Your task to perform on an android device: toggle show notifications on the lock screen Image 0: 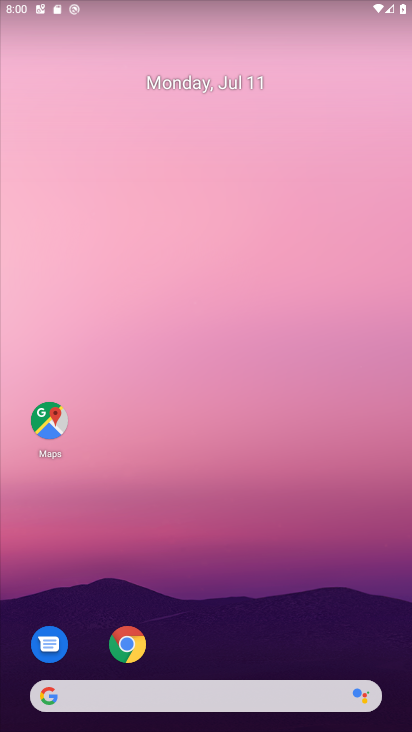
Step 0: drag from (249, 358) to (254, 116)
Your task to perform on an android device: toggle show notifications on the lock screen Image 1: 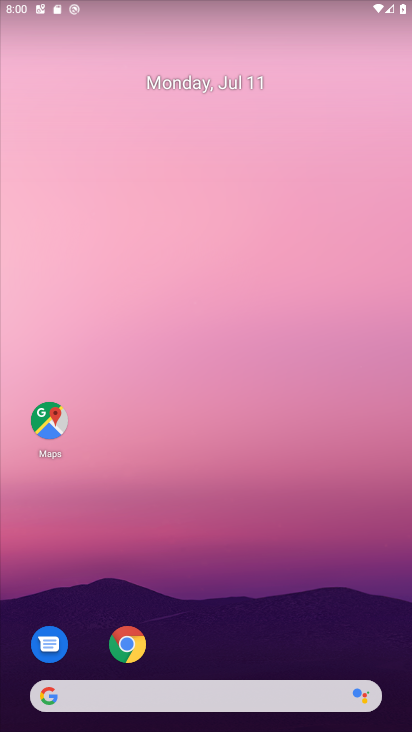
Step 1: drag from (218, 696) to (411, 87)
Your task to perform on an android device: toggle show notifications on the lock screen Image 2: 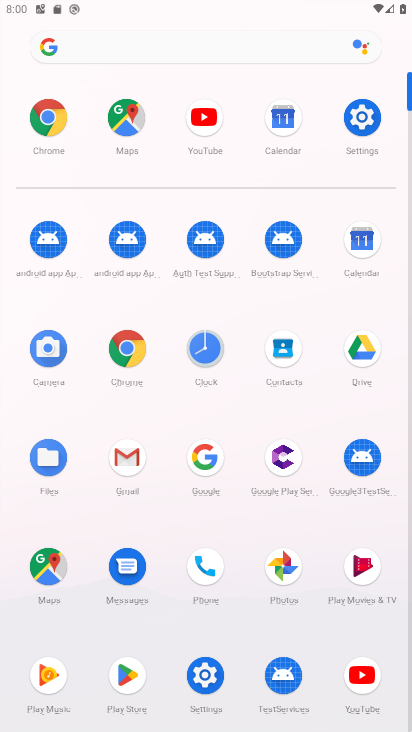
Step 2: click (370, 125)
Your task to perform on an android device: toggle show notifications on the lock screen Image 3: 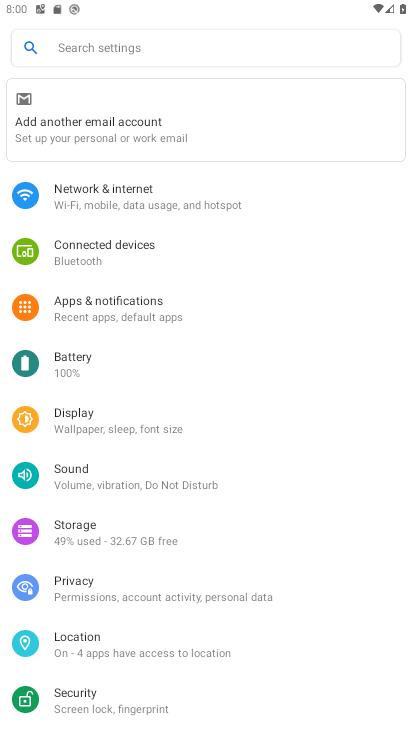
Step 3: click (143, 303)
Your task to perform on an android device: toggle show notifications on the lock screen Image 4: 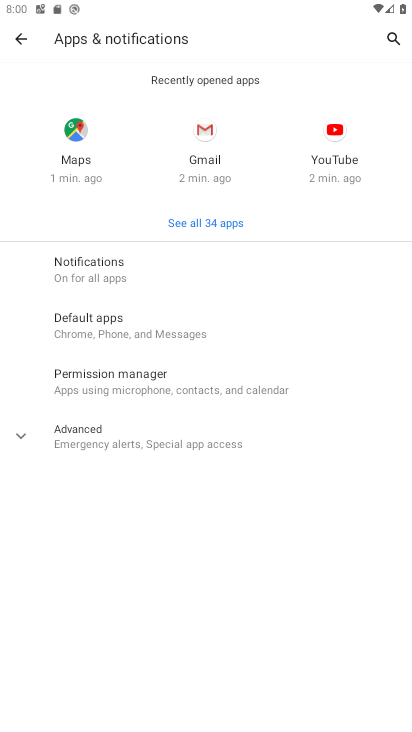
Step 4: click (96, 264)
Your task to perform on an android device: toggle show notifications on the lock screen Image 5: 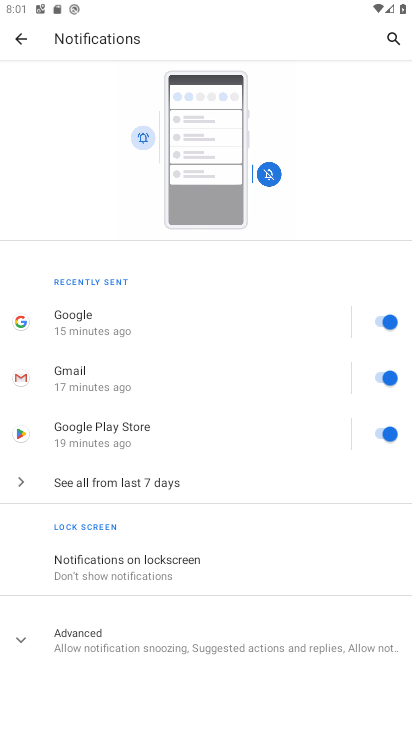
Step 5: click (116, 564)
Your task to perform on an android device: toggle show notifications on the lock screen Image 6: 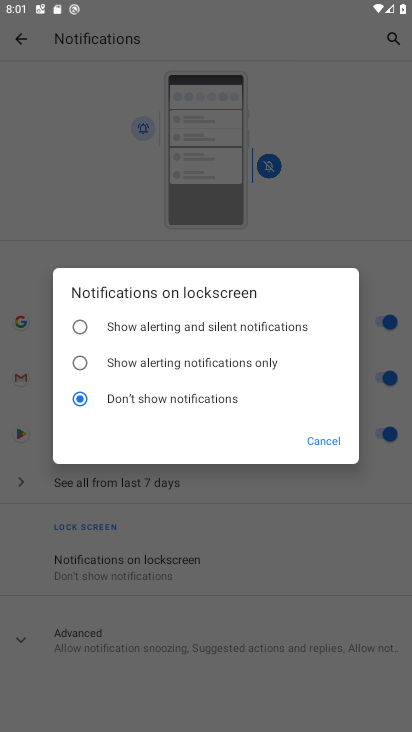
Step 6: click (125, 317)
Your task to perform on an android device: toggle show notifications on the lock screen Image 7: 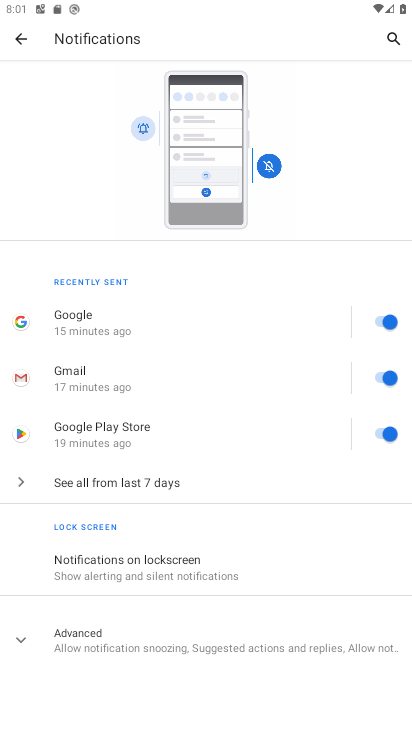
Step 7: task complete